Your task to perform on an android device: turn on wifi Image 0: 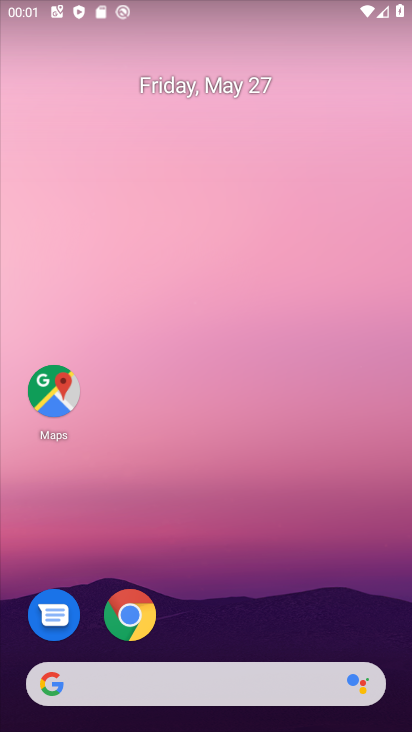
Step 0: drag from (269, 50) to (179, 729)
Your task to perform on an android device: turn on wifi Image 1: 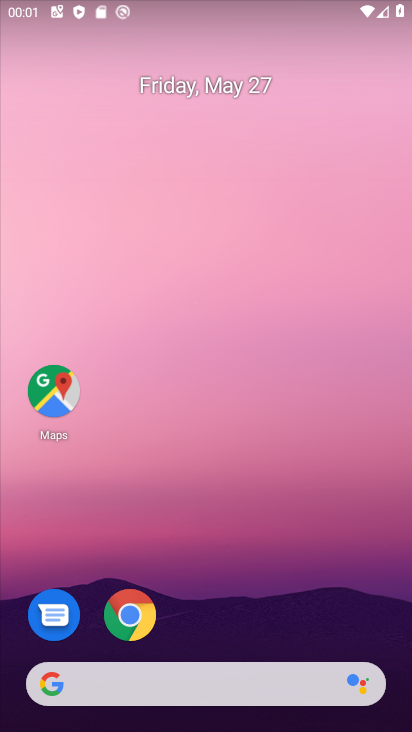
Step 1: task complete